Your task to perform on an android device: Open battery settings Image 0: 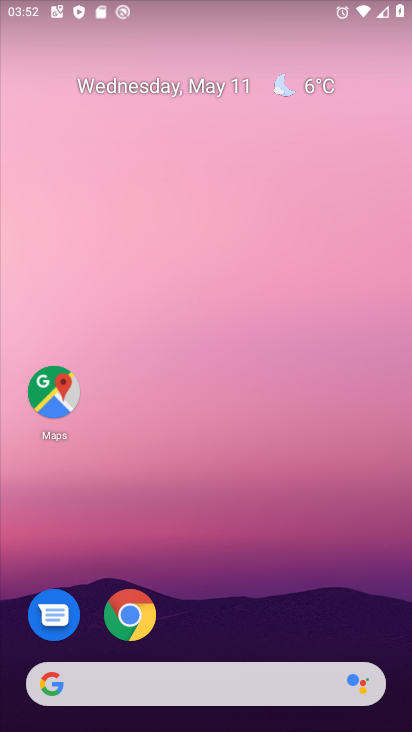
Step 0: drag from (281, 613) to (321, 141)
Your task to perform on an android device: Open battery settings Image 1: 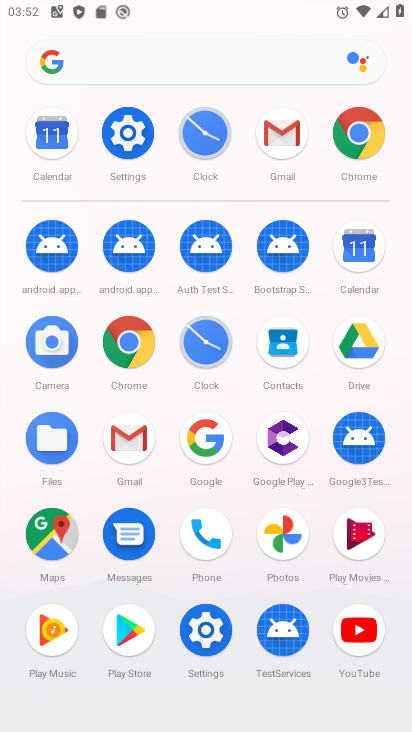
Step 1: click (136, 145)
Your task to perform on an android device: Open battery settings Image 2: 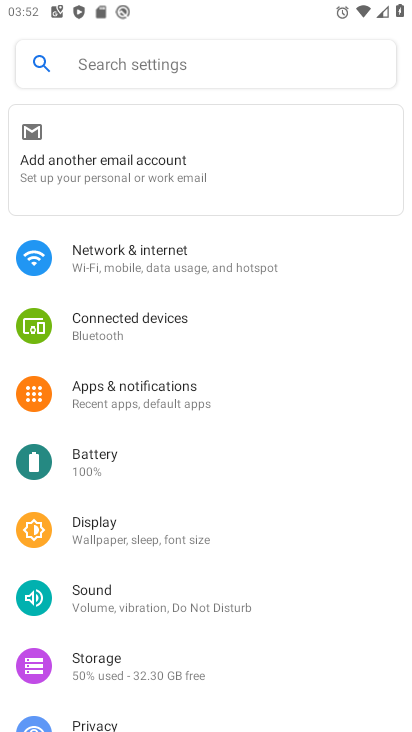
Step 2: click (103, 463)
Your task to perform on an android device: Open battery settings Image 3: 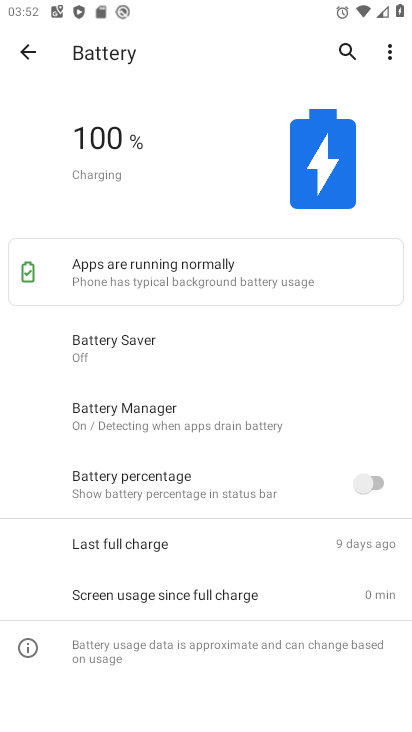
Step 3: task complete